Your task to perform on an android device: turn on airplane mode Image 0: 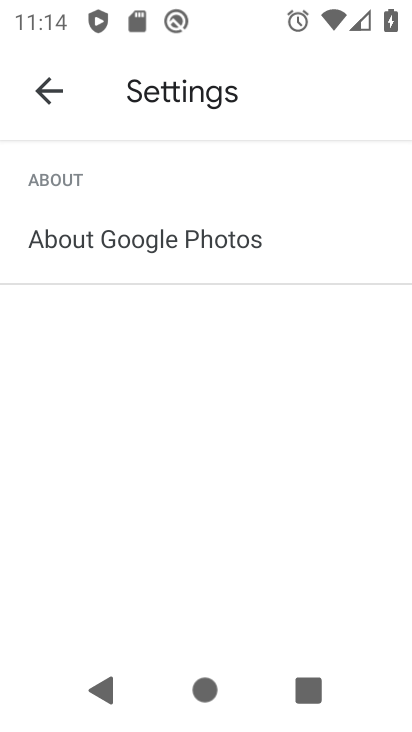
Step 0: press home button
Your task to perform on an android device: turn on airplane mode Image 1: 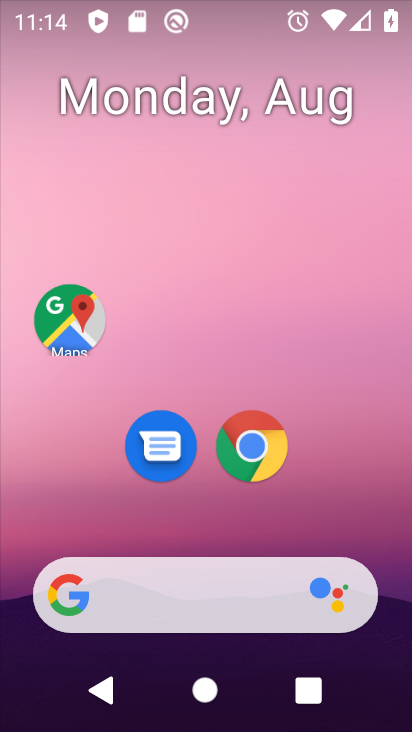
Step 1: drag from (217, 509) to (187, 104)
Your task to perform on an android device: turn on airplane mode Image 2: 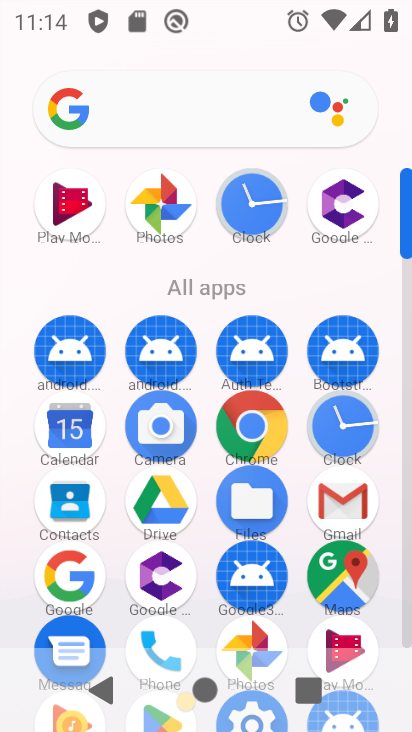
Step 2: drag from (199, 537) to (213, 312)
Your task to perform on an android device: turn on airplane mode Image 3: 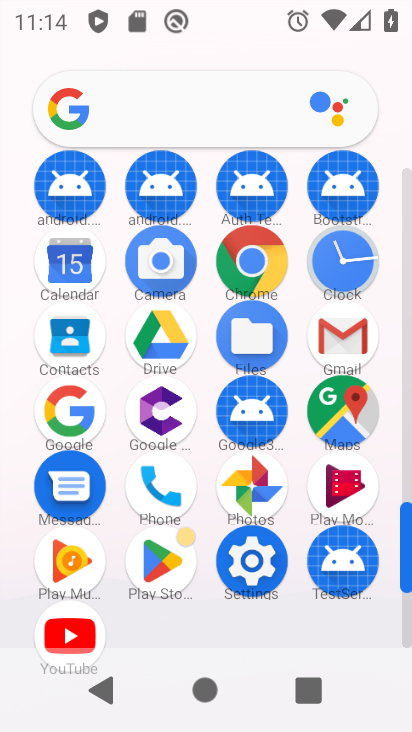
Step 3: click (255, 568)
Your task to perform on an android device: turn on airplane mode Image 4: 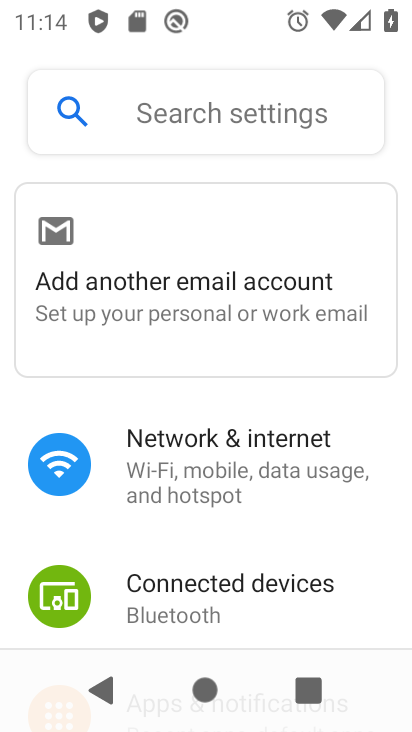
Step 4: click (226, 434)
Your task to perform on an android device: turn on airplane mode Image 5: 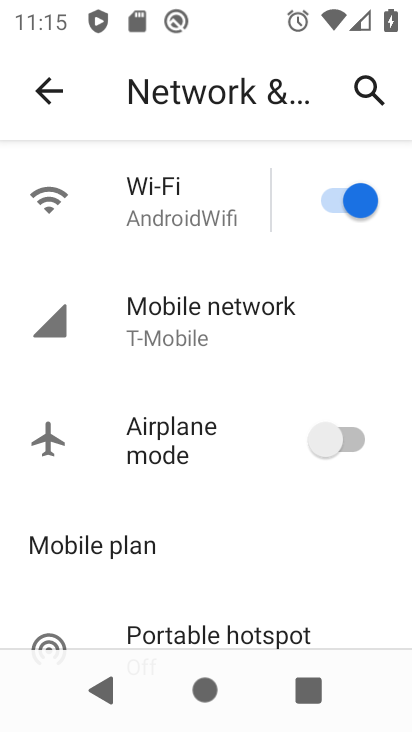
Step 5: click (381, 434)
Your task to perform on an android device: turn on airplane mode Image 6: 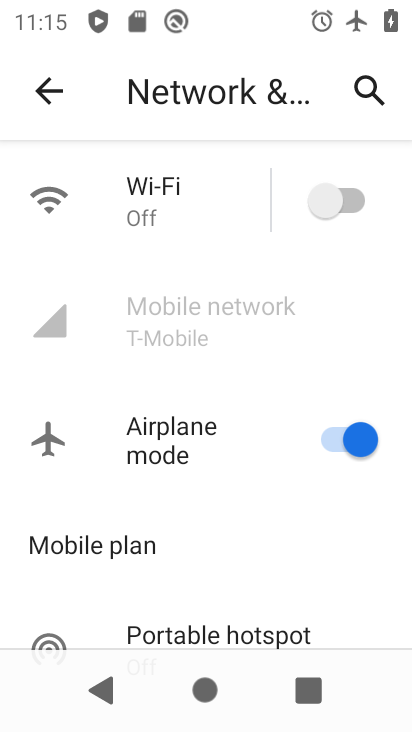
Step 6: task complete